Your task to perform on an android device: What's the latest video from Game Informer? Image 0: 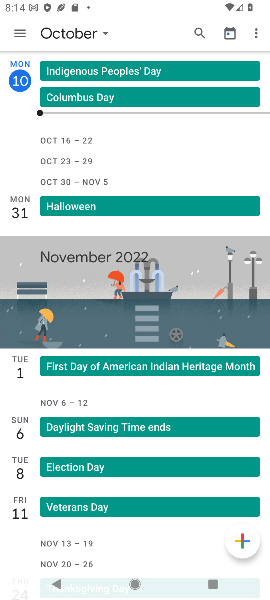
Step 0: press home button
Your task to perform on an android device: What's the latest video from Game Informer? Image 1: 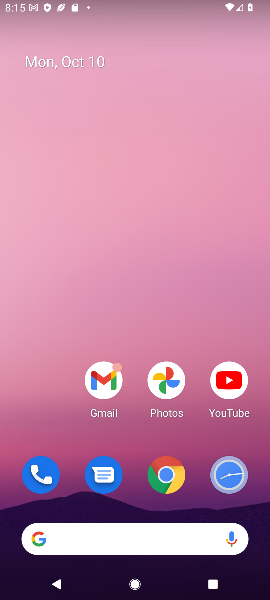
Step 1: drag from (143, 489) to (127, 169)
Your task to perform on an android device: What's the latest video from Game Informer? Image 2: 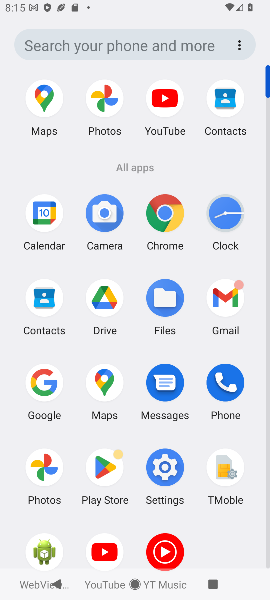
Step 2: click (102, 543)
Your task to perform on an android device: What's the latest video from Game Informer? Image 3: 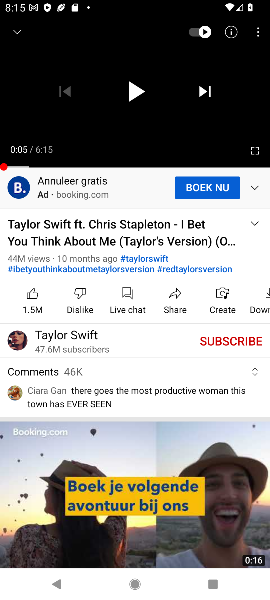
Step 3: click (16, 31)
Your task to perform on an android device: What's the latest video from Game Informer? Image 4: 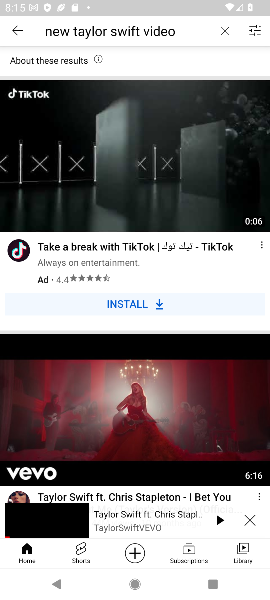
Step 4: click (249, 519)
Your task to perform on an android device: What's the latest video from Game Informer? Image 5: 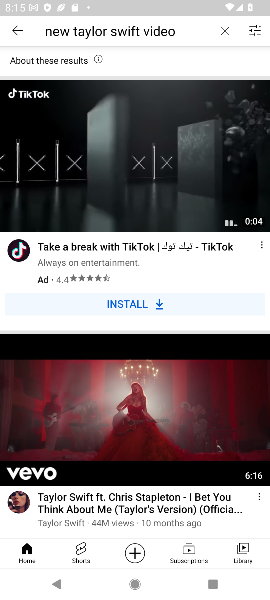
Step 5: click (225, 30)
Your task to perform on an android device: What's the latest video from Game Informer? Image 6: 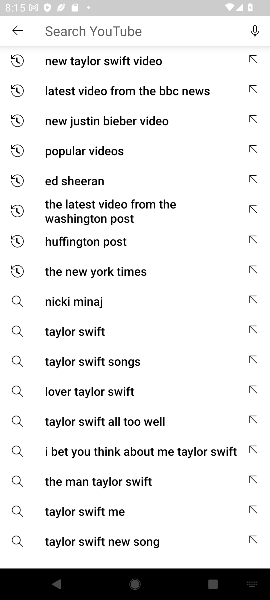
Step 6: type "the latest video from Game Informer"
Your task to perform on an android device: What's the latest video from Game Informer? Image 7: 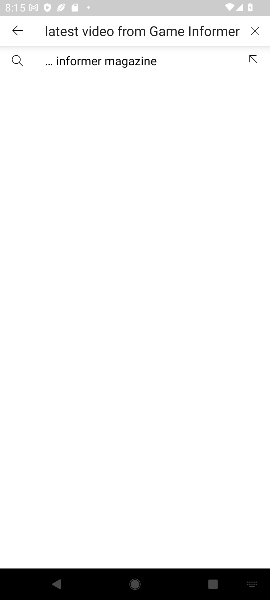
Step 7: click (132, 55)
Your task to perform on an android device: What's the latest video from Game Informer? Image 8: 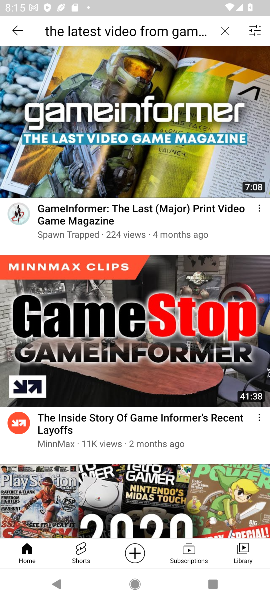
Step 8: click (192, 357)
Your task to perform on an android device: What's the latest video from Game Informer? Image 9: 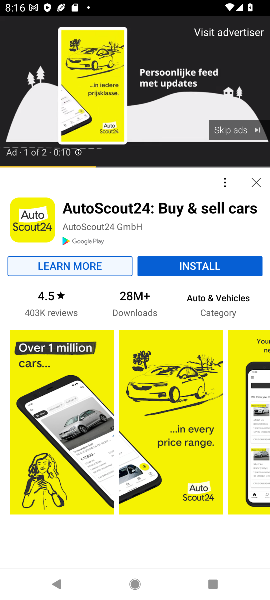
Step 9: click (242, 130)
Your task to perform on an android device: What's the latest video from Game Informer? Image 10: 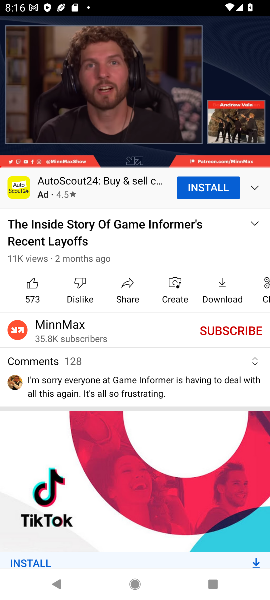
Step 10: click (253, 180)
Your task to perform on an android device: What's the latest video from Game Informer? Image 11: 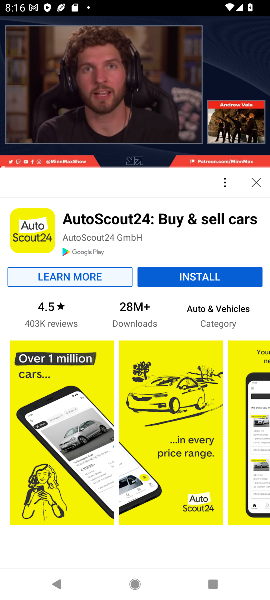
Step 11: task complete